Your task to perform on an android device: clear history in the chrome app Image 0: 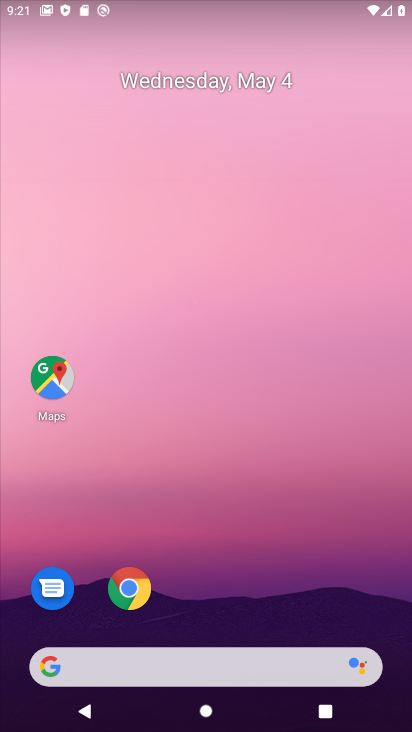
Step 0: click (119, 589)
Your task to perform on an android device: clear history in the chrome app Image 1: 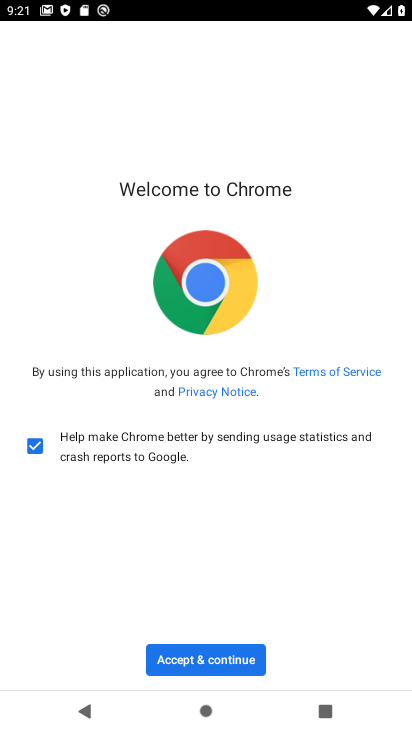
Step 1: click (223, 652)
Your task to perform on an android device: clear history in the chrome app Image 2: 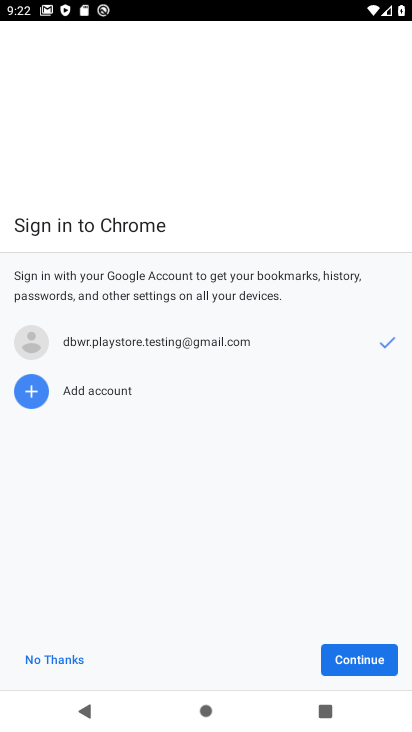
Step 2: click (369, 669)
Your task to perform on an android device: clear history in the chrome app Image 3: 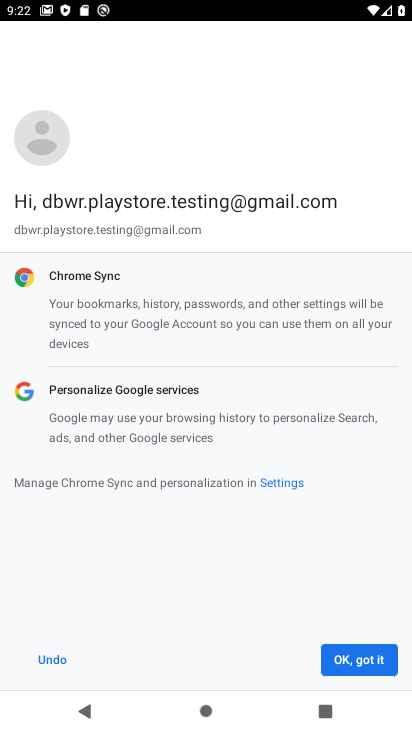
Step 3: click (369, 669)
Your task to perform on an android device: clear history in the chrome app Image 4: 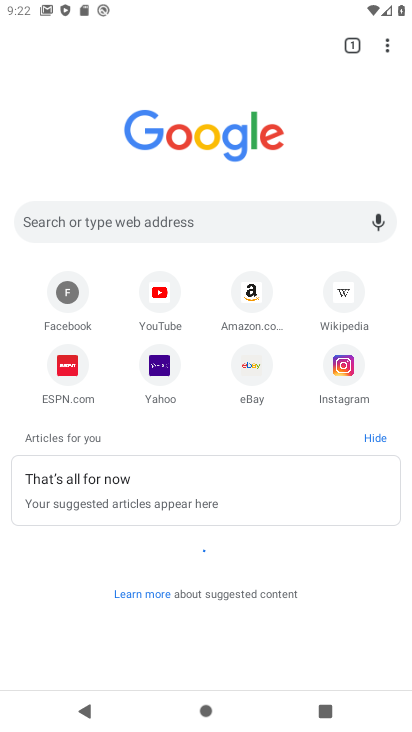
Step 4: click (387, 47)
Your task to perform on an android device: clear history in the chrome app Image 5: 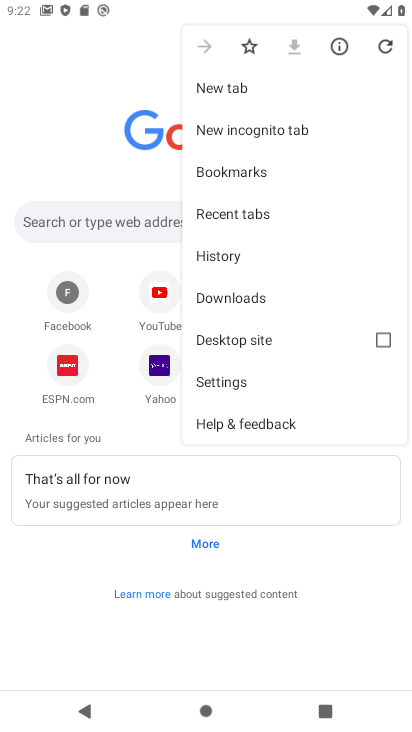
Step 5: click (237, 255)
Your task to perform on an android device: clear history in the chrome app Image 6: 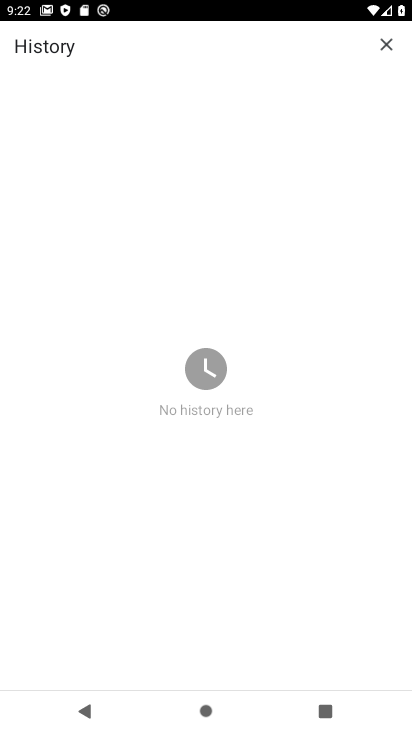
Step 6: task complete